Your task to perform on an android device: What's on my calendar tomorrow? Image 0: 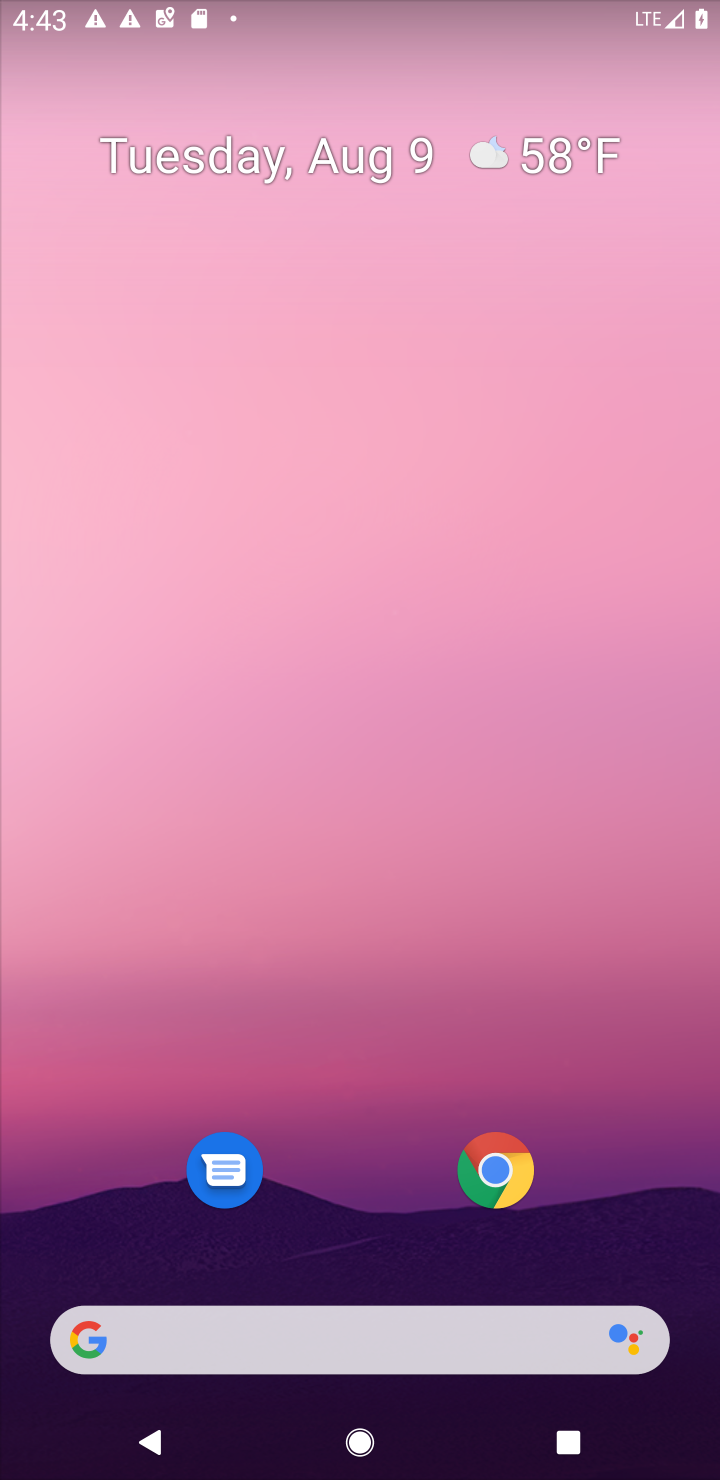
Step 0: press home button
Your task to perform on an android device: What's on my calendar tomorrow? Image 1: 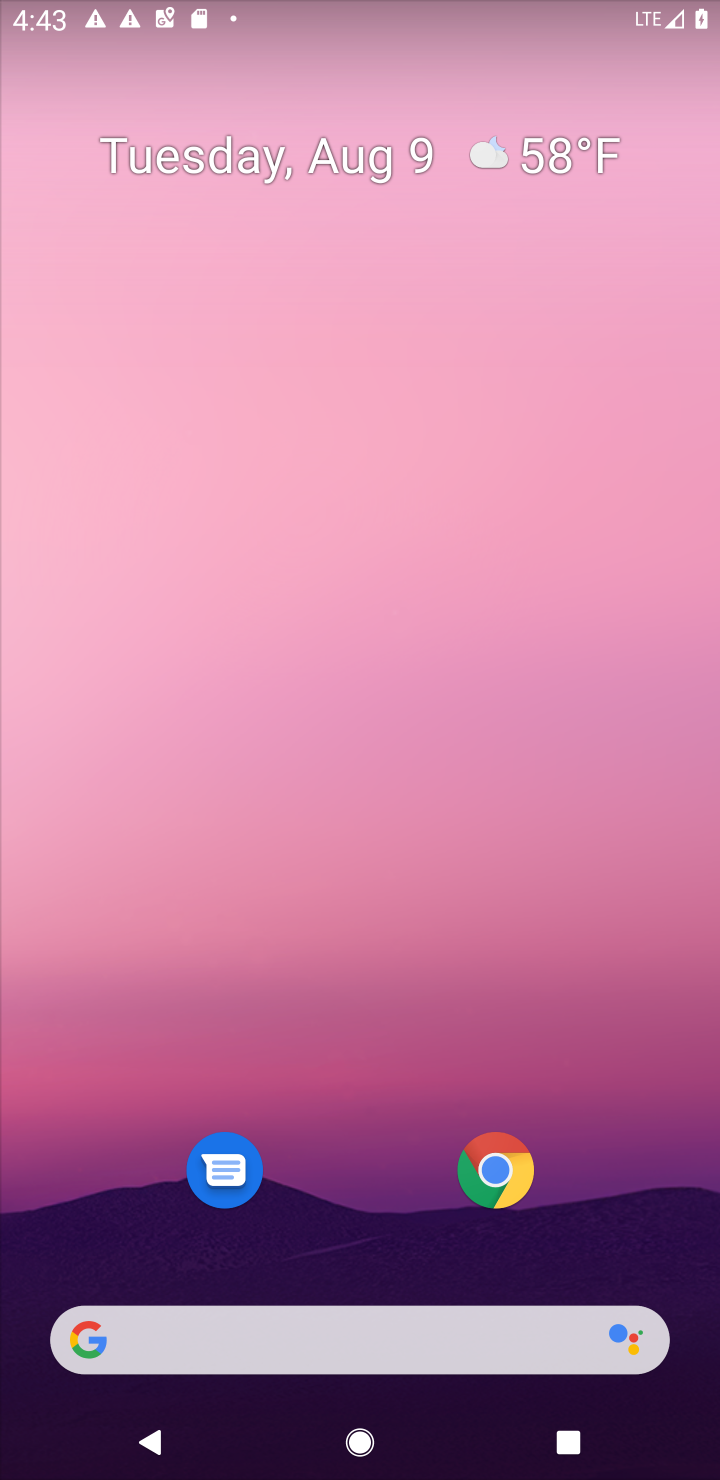
Step 1: drag from (369, 558) to (405, 110)
Your task to perform on an android device: What's on my calendar tomorrow? Image 2: 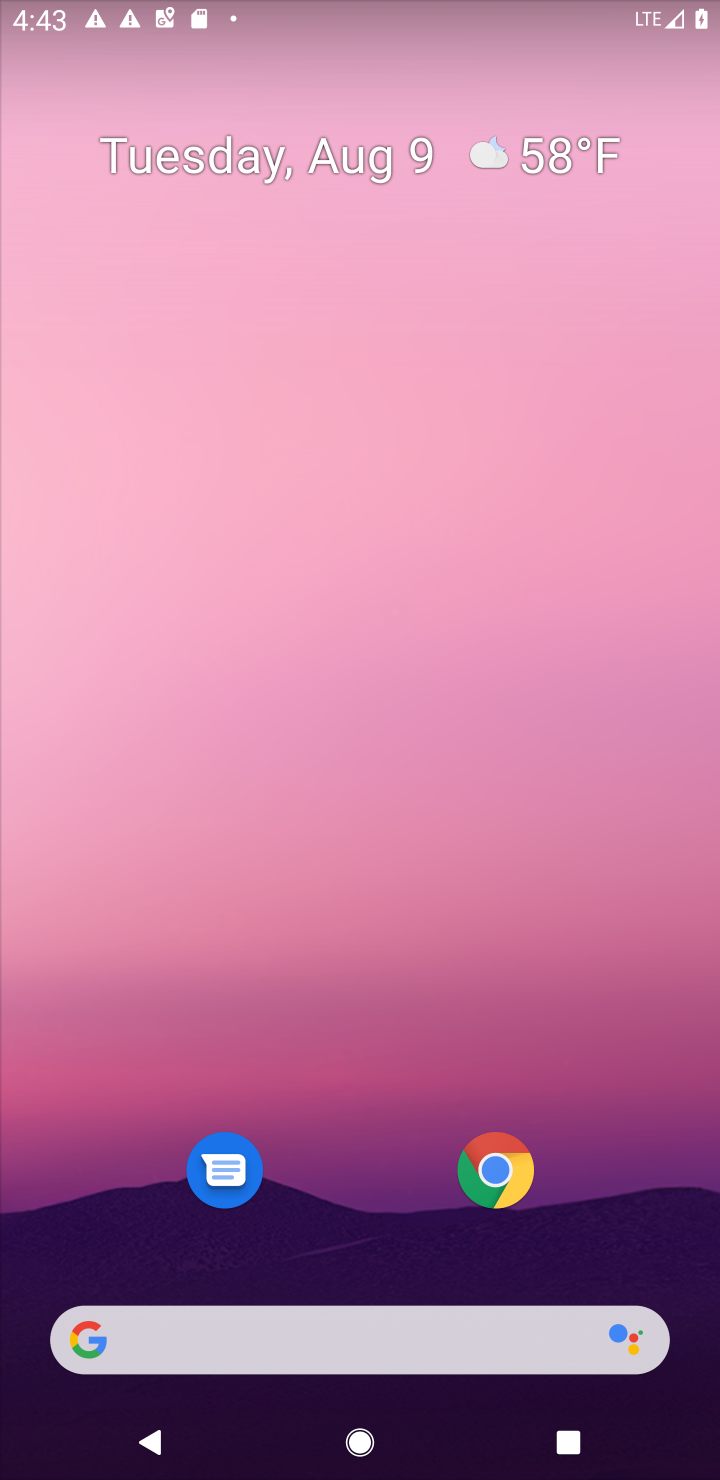
Step 2: drag from (347, 1209) to (308, 59)
Your task to perform on an android device: What's on my calendar tomorrow? Image 3: 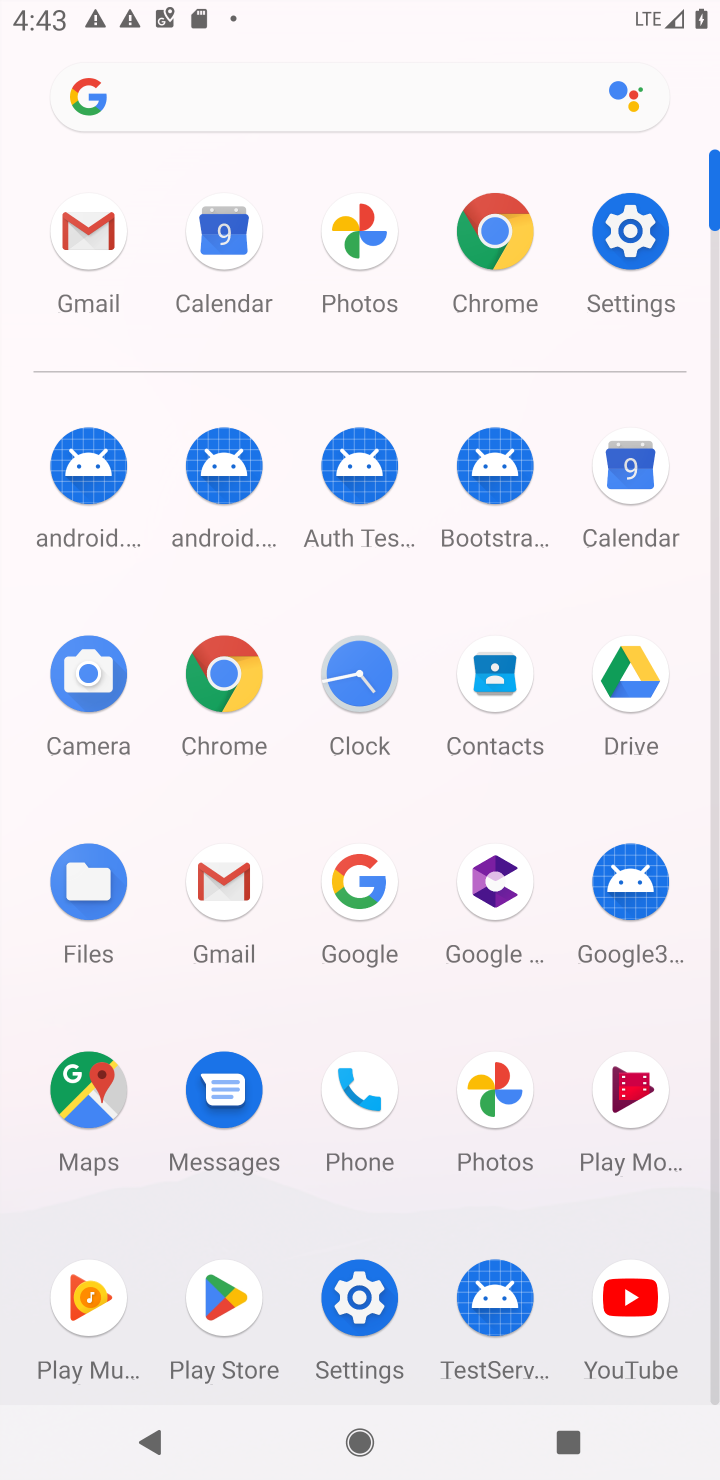
Step 3: click (626, 468)
Your task to perform on an android device: What's on my calendar tomorrow? Image 4: 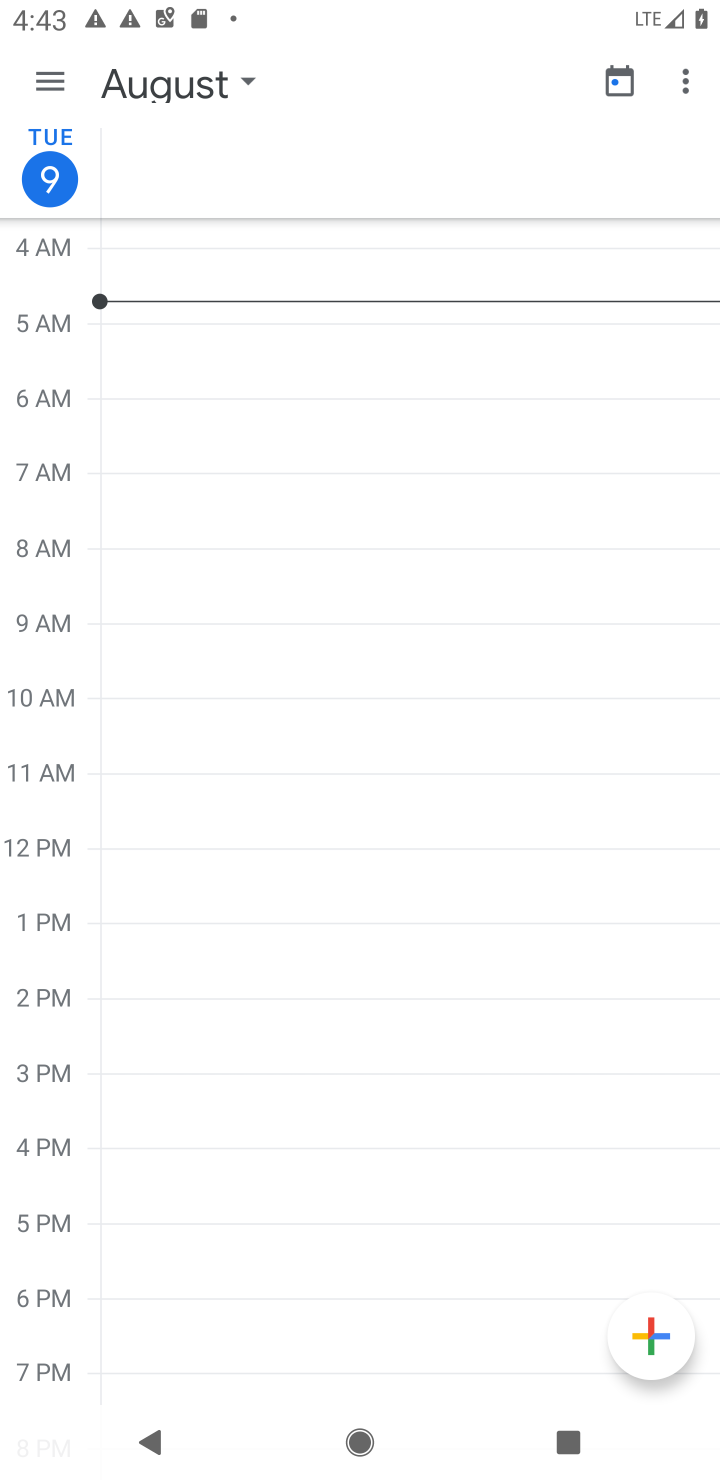
Step 4: task complete